Your task to perform on an android device: Open location settings Image 0: 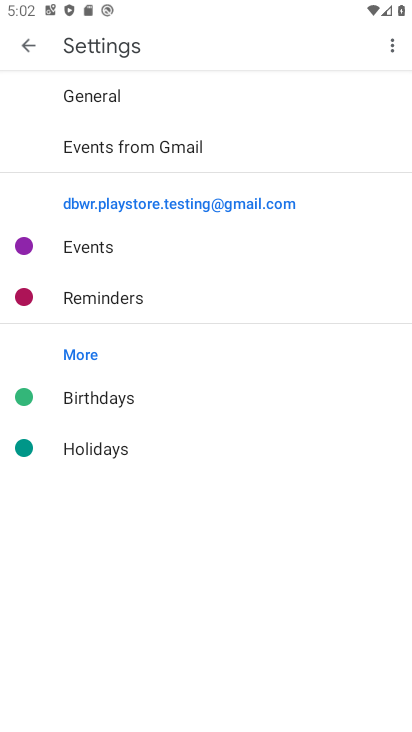
Step 0: press home button
Your task to perform on an android device: Open location settings Image 1: 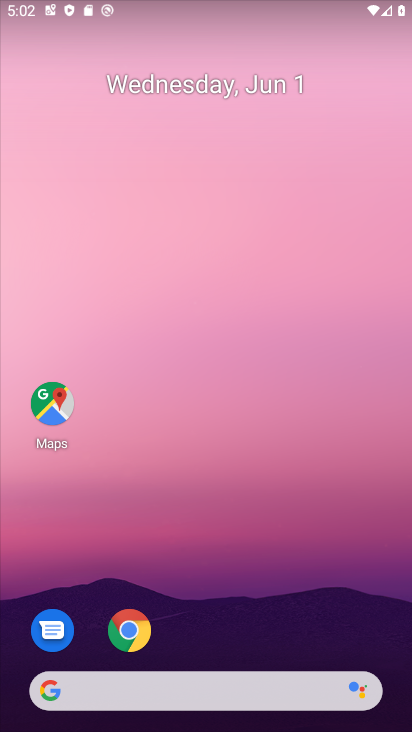
Step 1: drag from (218, 640) to (335, 111)
Your task to perform on an android device: Open location settings Image 2: 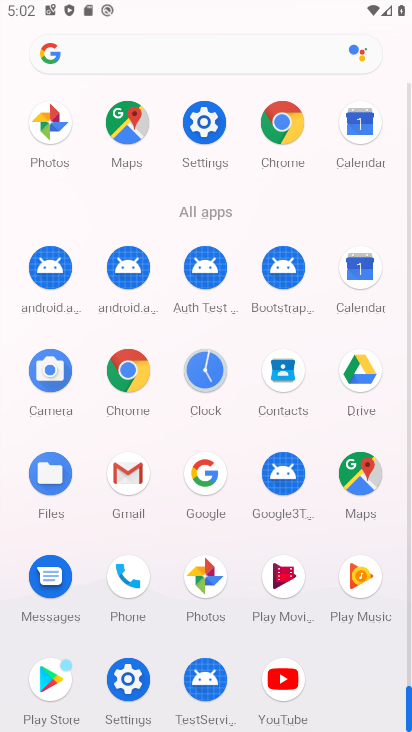
Step 2: click (129, 690)
Your task to perform on an android device: Open location settings Image 3: 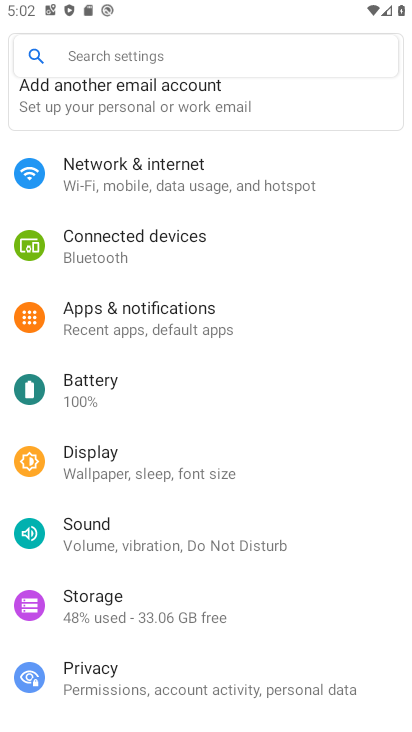
Step 3: drag from (153, 698) to (265, 450)
Your task to perform on an android device: Open location settings Image 4: 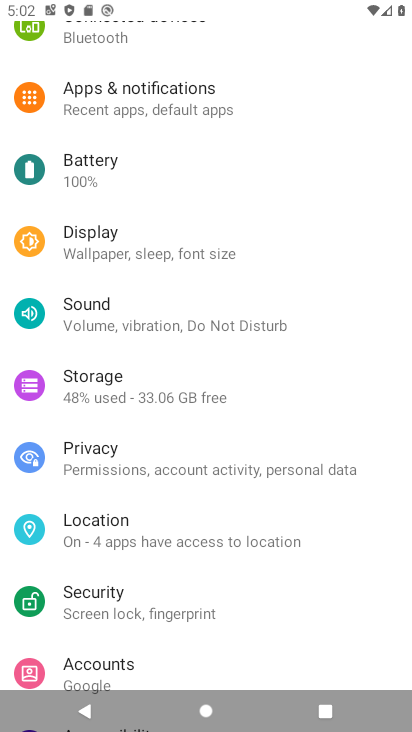
Step 4: click (180, 533)
Your task to perform on an android device: Open location settings Image 5: 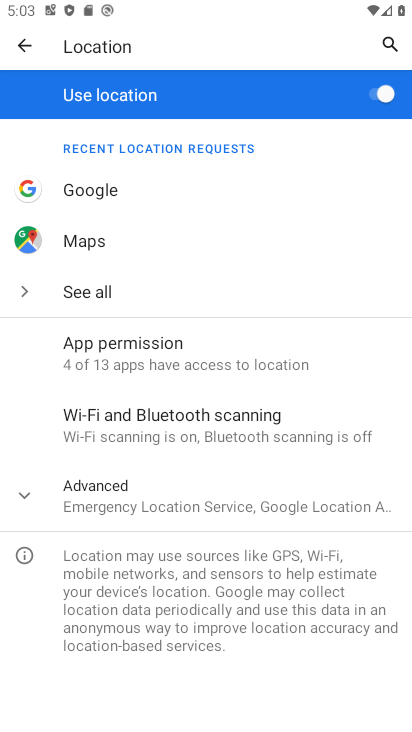
Step 5: task complete